Your task to perform on an android device: set the timer Image 0: 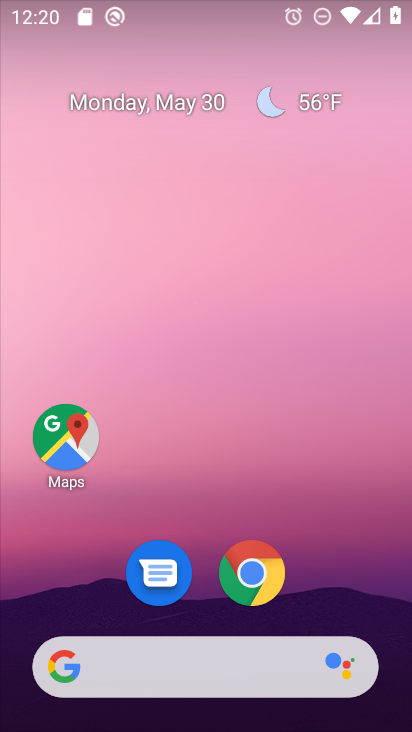
Step 0: drag from (255, 155) to (260, 23)
Your task to perform on an android device: set the timer Image 1: 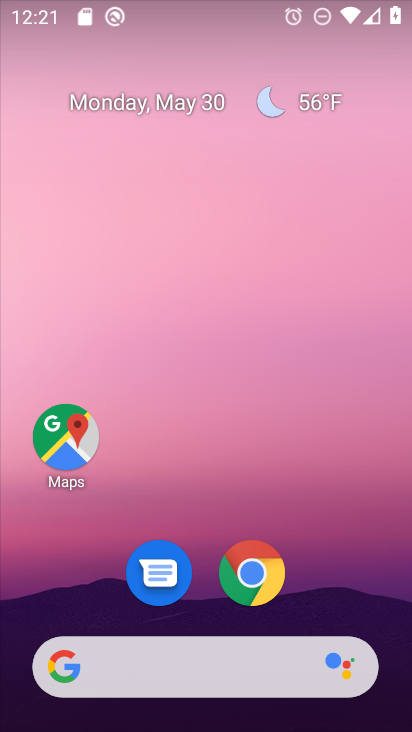
Step 1: drag from (270, 640) to (283, 1)
Your task to perform on an android device: set the timer Image 2: 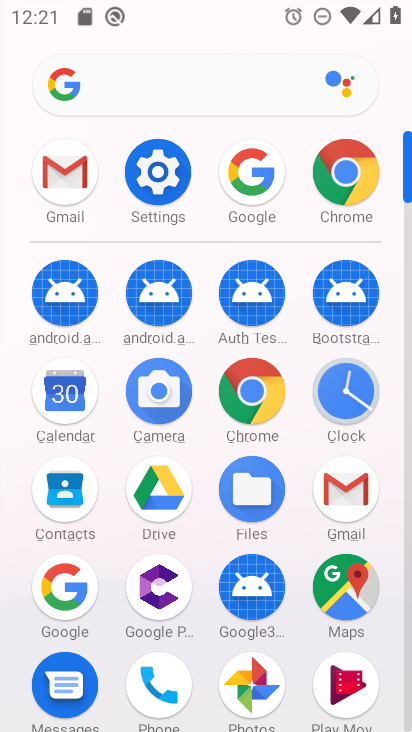
Step 2: click (358, 404)
Your task to perform on an android device: set the timer Image 3: 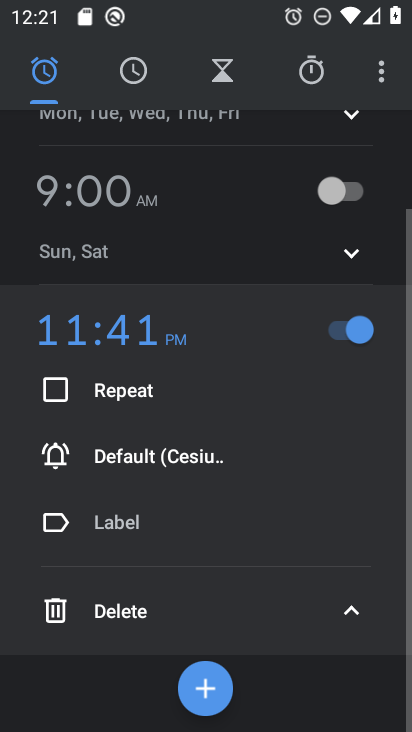
Step 3: click (139, 67)
Your task to perform on an android device: set the timer Image 4: 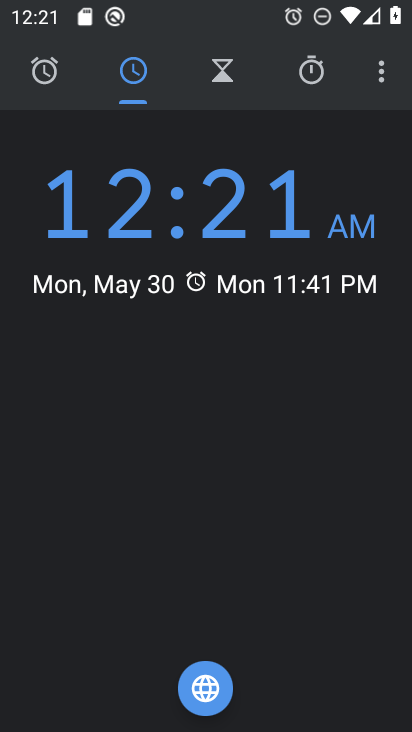
Step 4: click (225, 66)
Your task to perform on an android device: set the timer Image 5: 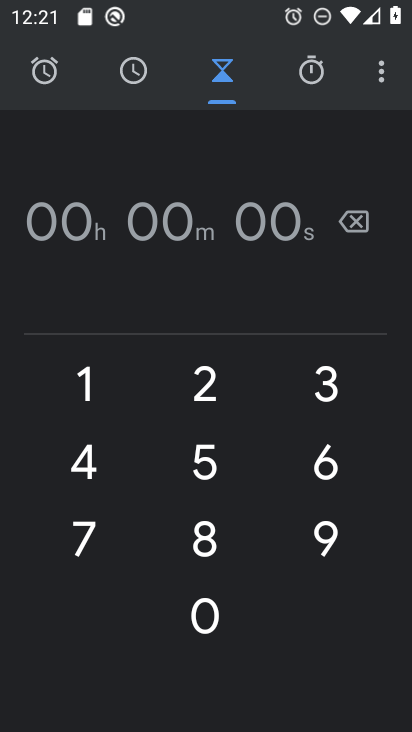
Step 5: click (216, 542)
Your task to perform on an android device: set the timer Image 6: 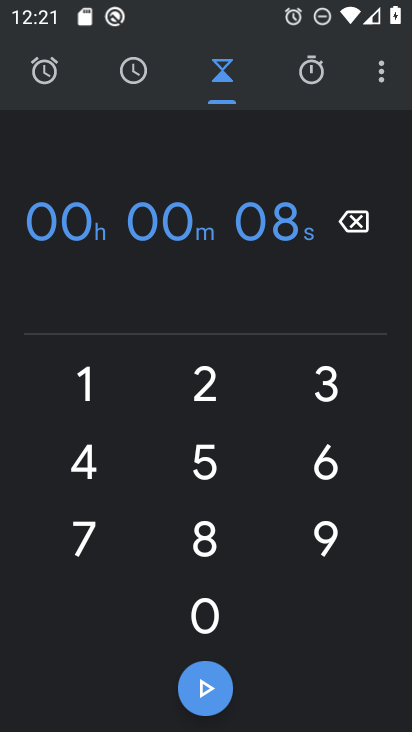
Step 6: click (219, 383)
Your task to perform on an android device: set the timer Image 7: 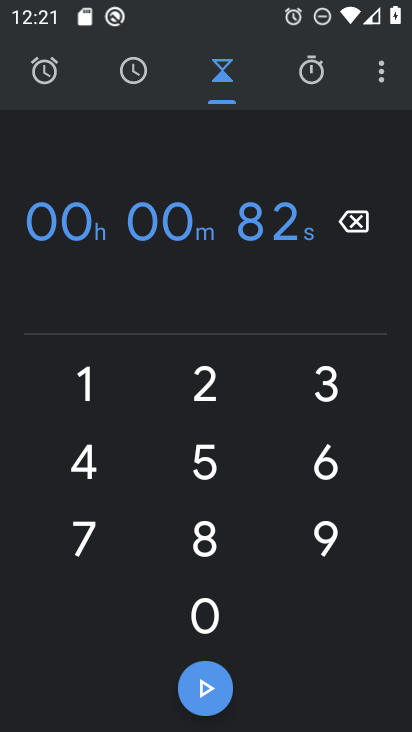
Step 7: click (211, 451)
Your task to perform on an android device: set the timer Image 8: 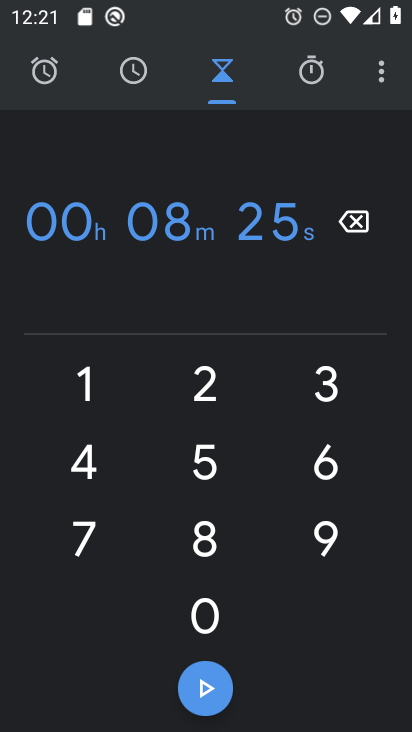
Step 8: click (314, 469)
Your task to perform on an android device: set the timer Image 9: 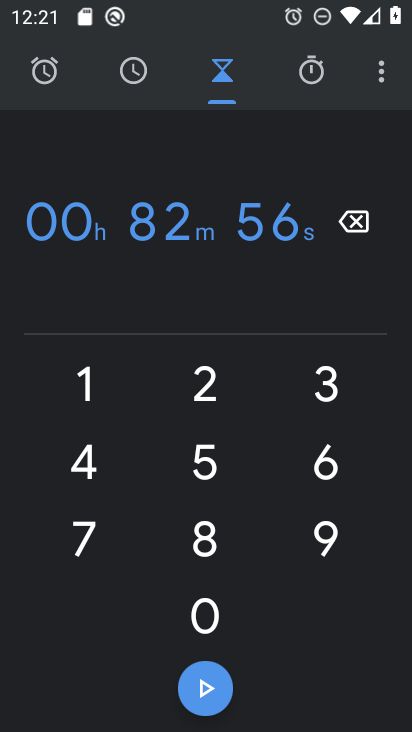
Step 9: click (93, 449)
Your task to perform on an android device: set the timer Image 10: 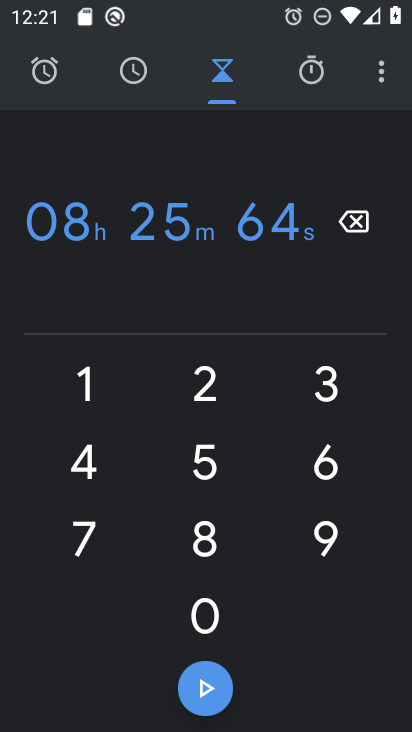
Step 10: click (200, 368)
Your task to perform on an android device: set the timer Image 11: 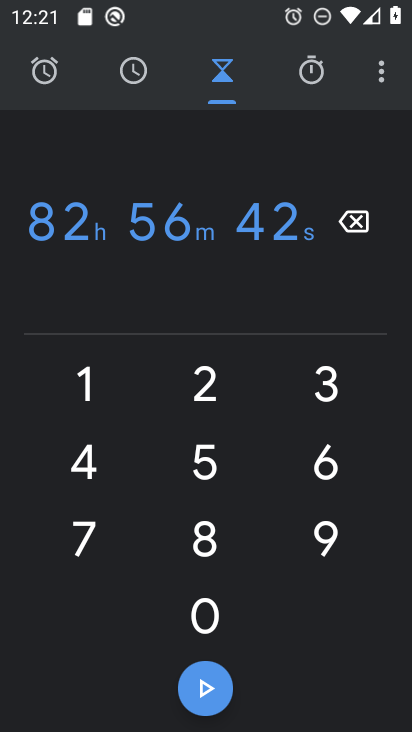
Step 11: click (220, 685)
Your task to perform on an android device: set the timer Image 12: 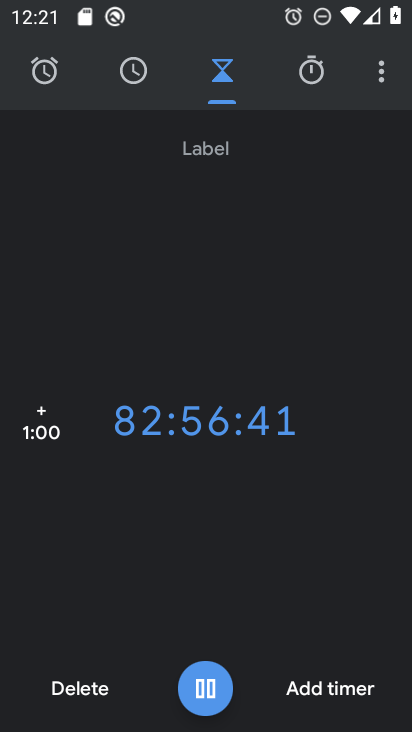
Step 12: task complete